Your task to perform on an android device: change the upload size in google photos Image 0: 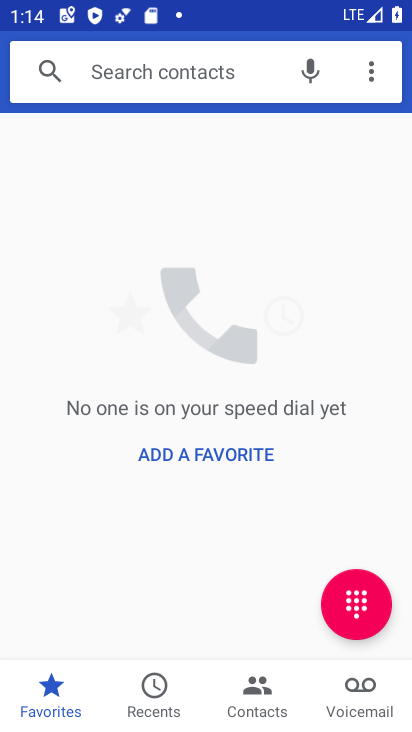
Step 0: press home button
Your task to perform on an android device: change the upload size in google photos Image 1: 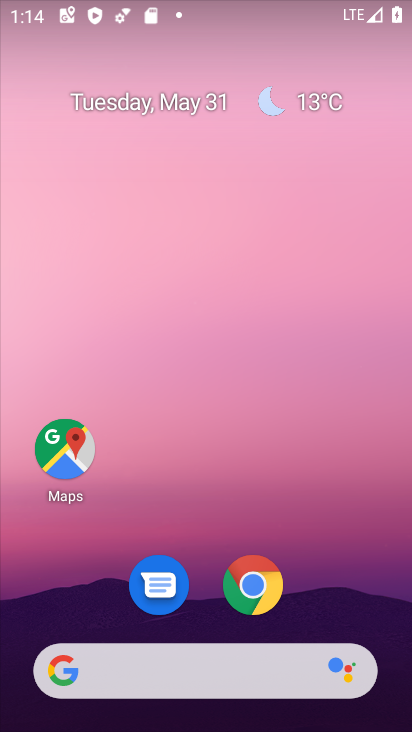
Step 1: drag from (190, 553) to (180, 74)
Your task to perform on an android device: change the upload size in google photos Image 2: 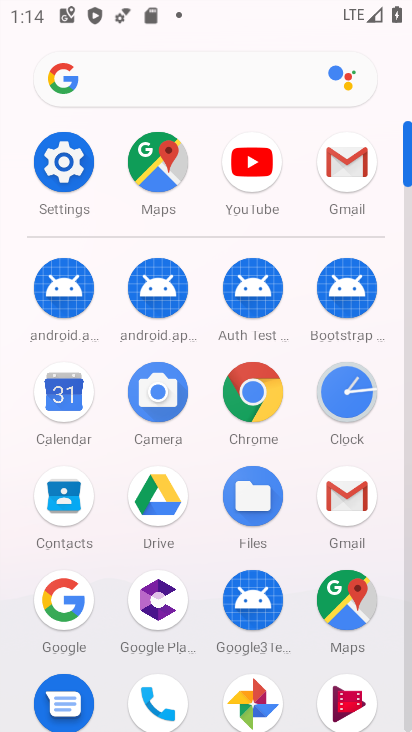
Step 2: drag from (201, 436) to (192, 199)
Your task to perform on an android device: change the upload size in google photos Image 3: 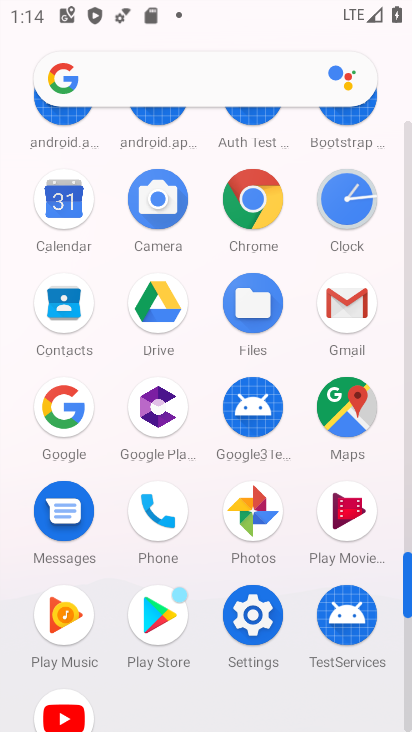
Step 3: click (253, 500)
Your task to perform on an android device: change the upload size in google photos Image 4: 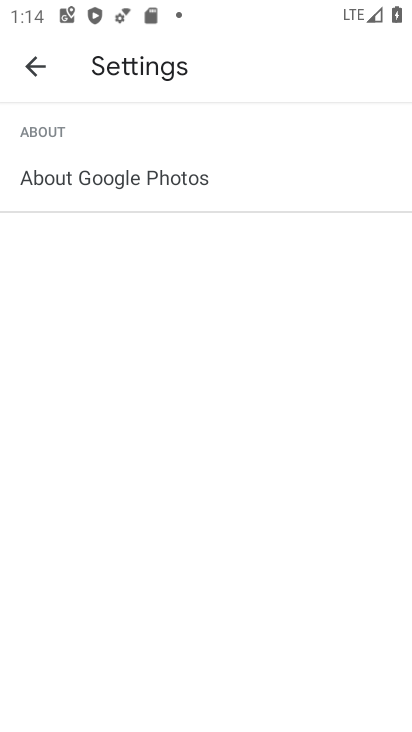
Step 4: click (40, 67)
Your task to perform on an android device: change the upload size in google photos Image 5: 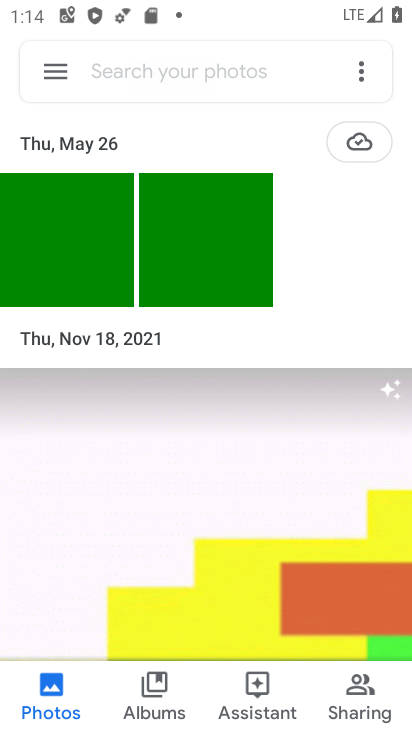
Step 5: click (51, 64)
Your task to perform on an android device: change the upload size in google photos Image 6: 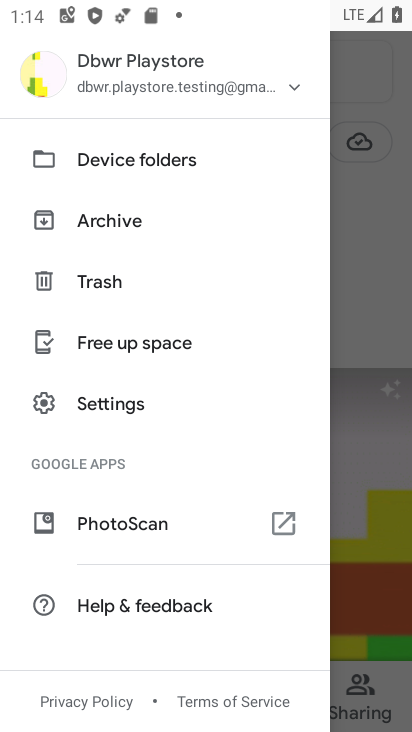
Step 6: click (138, 407)
Your task to perform on an android device: change the upload size in google photos Image 7: 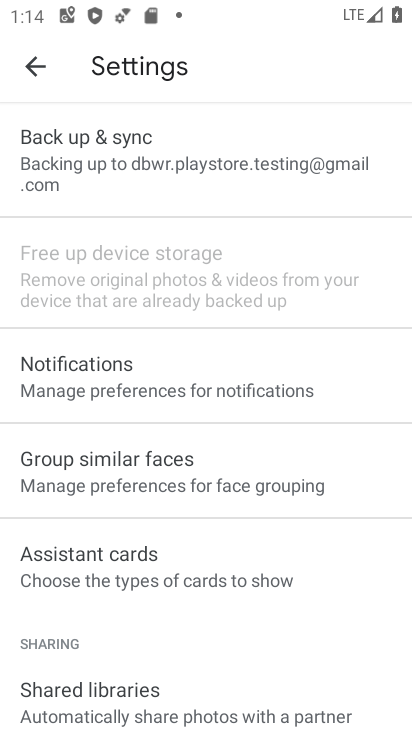
Step 7: click (188, 161)
Your task to perform on an android device: change the upload size in google photos Image 8: 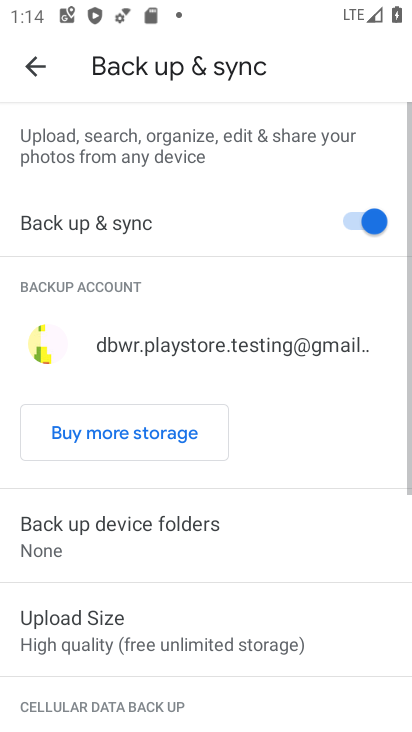
Step 8: click (185, 629)
Your task to perform on an android device: change the upload size in google photos Image 9: 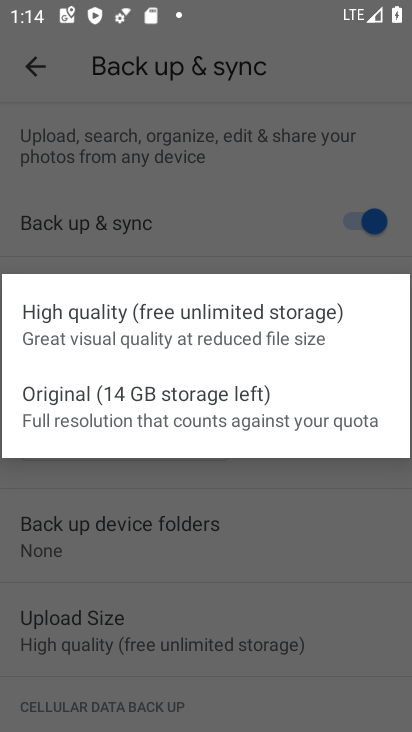
Step 9: click (229, 410)
Your task to perform on an android device: change the upload size in google photos Image 10: 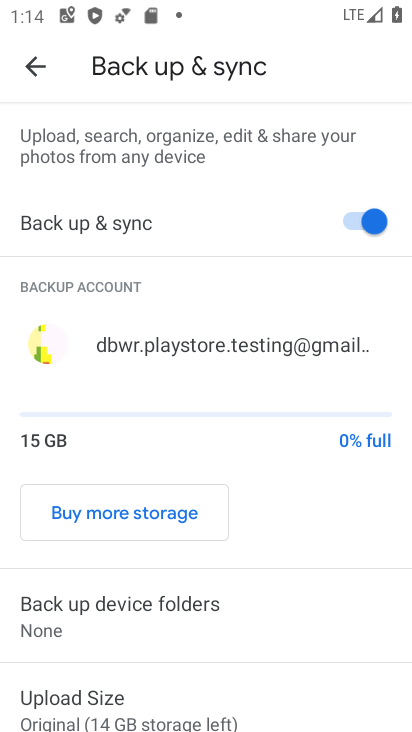
Step 10: task complete